Your task to perform on an android device: See recent photos Image 0: 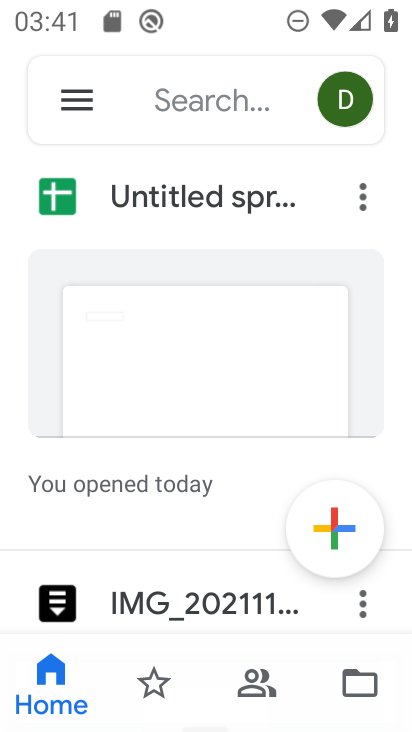
Step 0: press home button
Your task to perform on an android device: See recent photos Image 1: 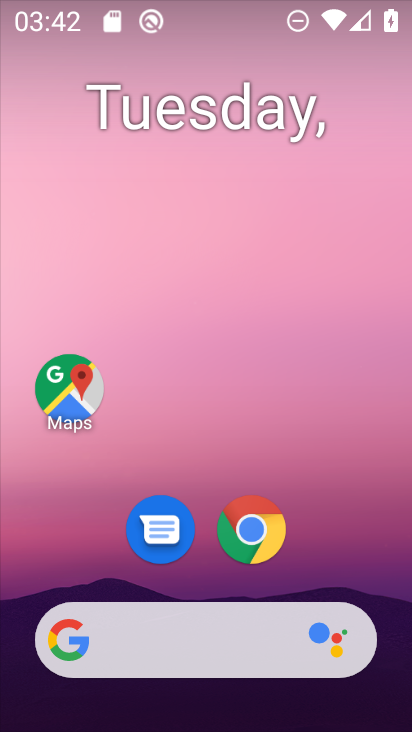
Step 1: drag from (348, 370) to (336, 143)
Your task to perform on an android device: See recent photos Image 2: 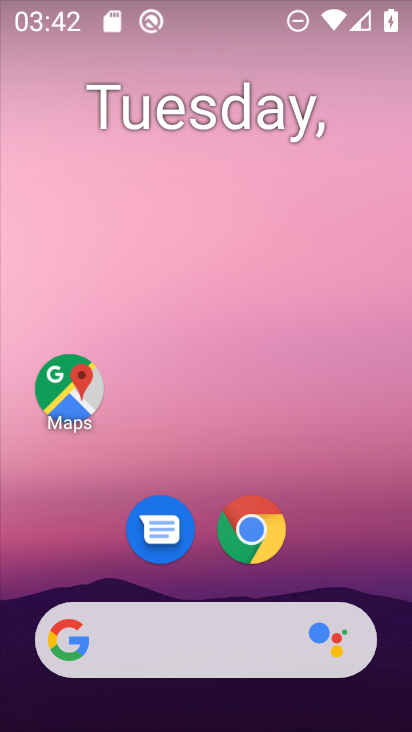
Step 2: drag from (184, 601) to (136, 113)
Your task to perform on an android device: See recent photos Image 3: 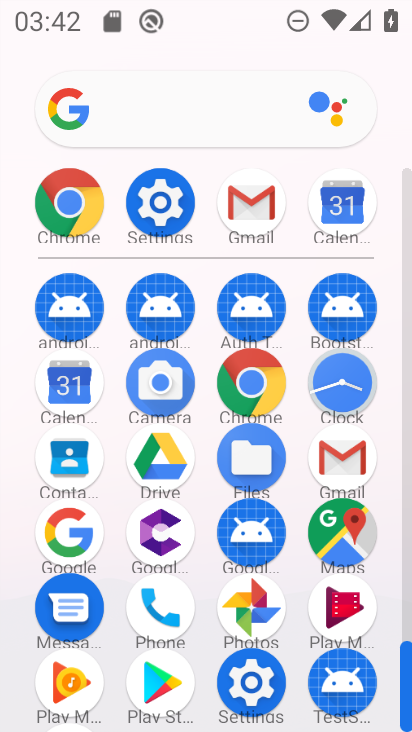
Step 3: click (252, 607)
Your task to perform on an android device: See recent photos Image 4: 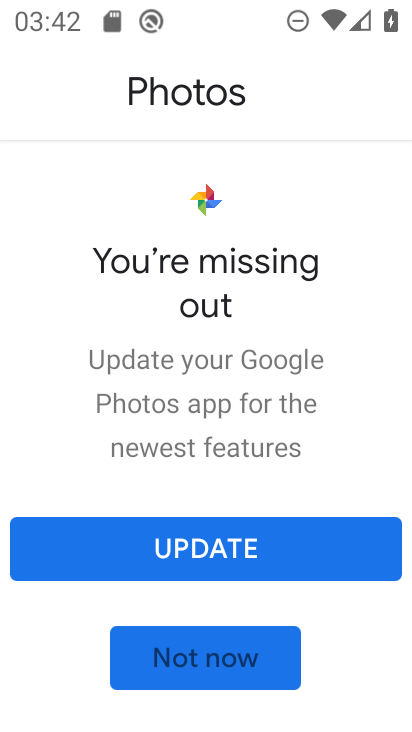
Step 4: click (249, 660)
Your task to perform on an android device: See recent photos Image 5: 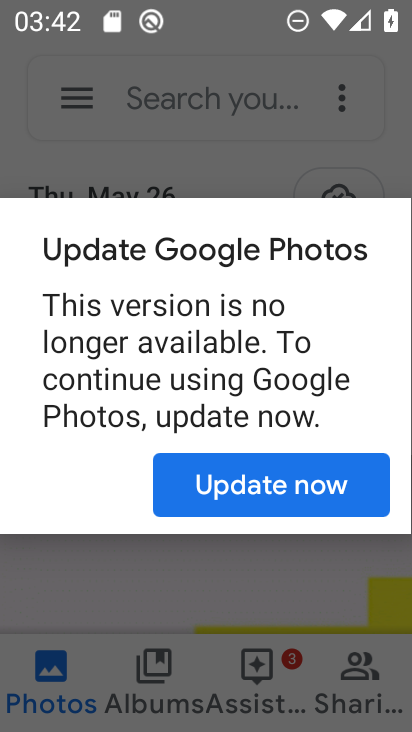
Step 5: click (315, 479)
Your task to perform on an android device: See recent photos Image 6: 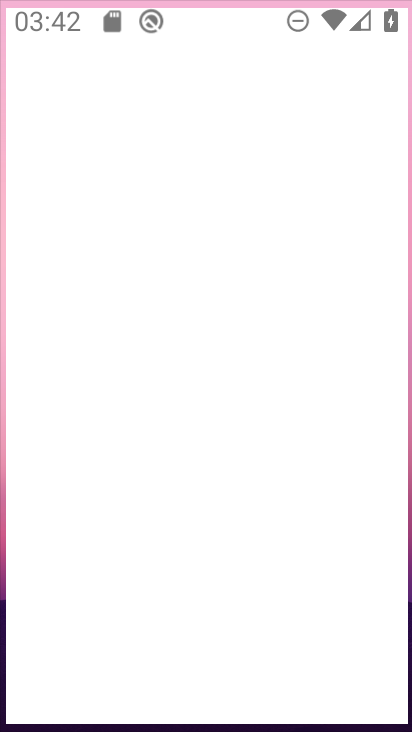
Step 6: press back button
Your task to perform on an android device: See recent photos Image 7: 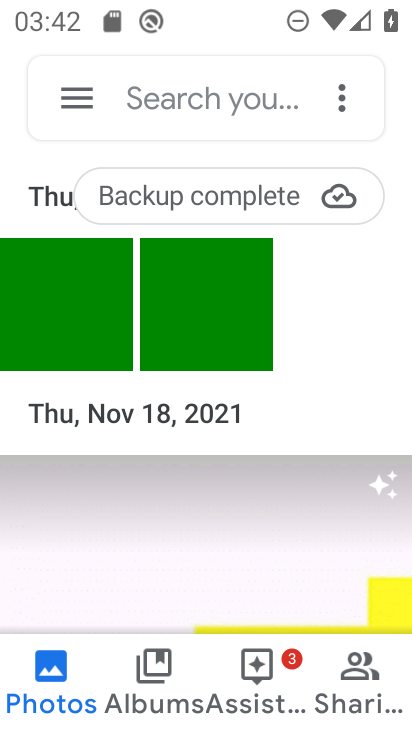
Step 7: click (130, 565)
Your task to perform on an android device: See recent photos Image 8: 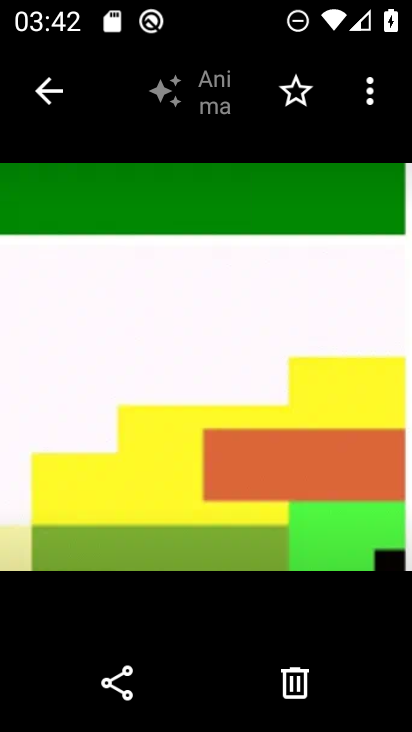
Step 8: task complete